Your task to perform on an android device: set an alarm Image 0: 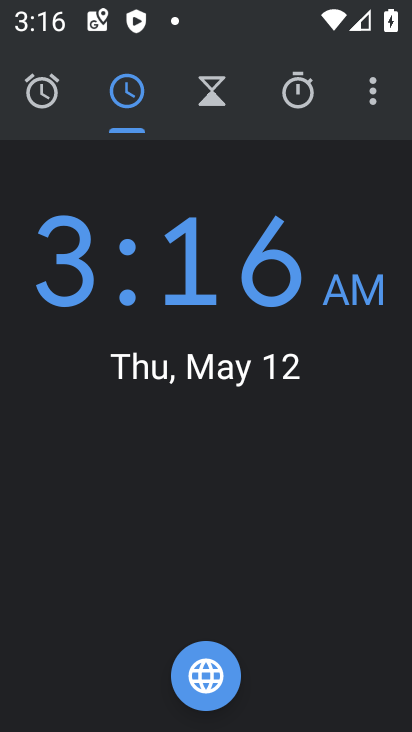
Step 0: click (44, 90)
Your task to perform on an android device: set an alarm Image 1: 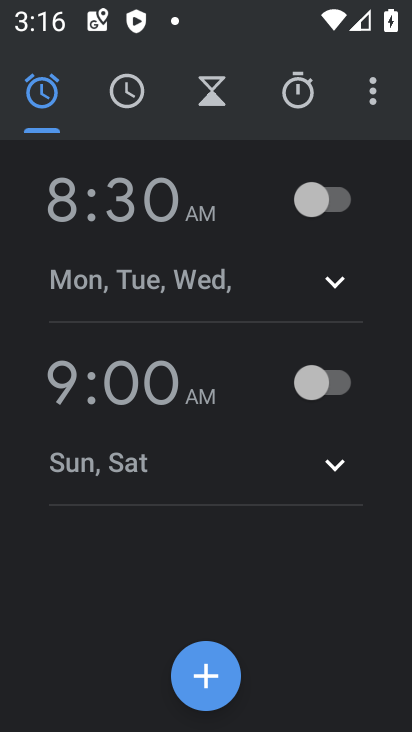
Step 1: click (205, 674)
Your task to perform on an android device: set an alarm Image 2: 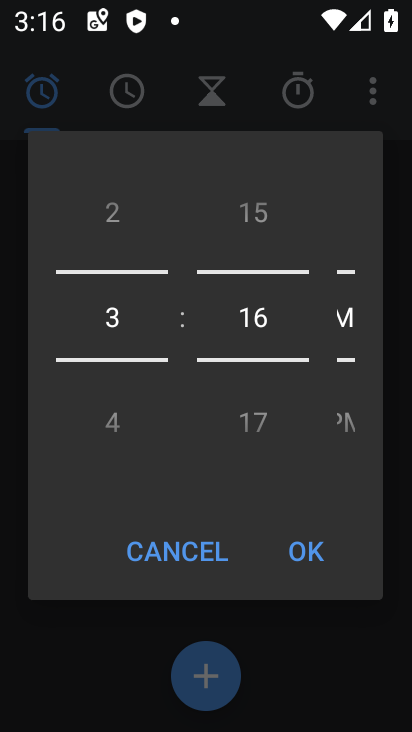
Step 2: drag from (120, 237) to (152, 434)
Your task to perform on an android device: set an alarm Image 3: 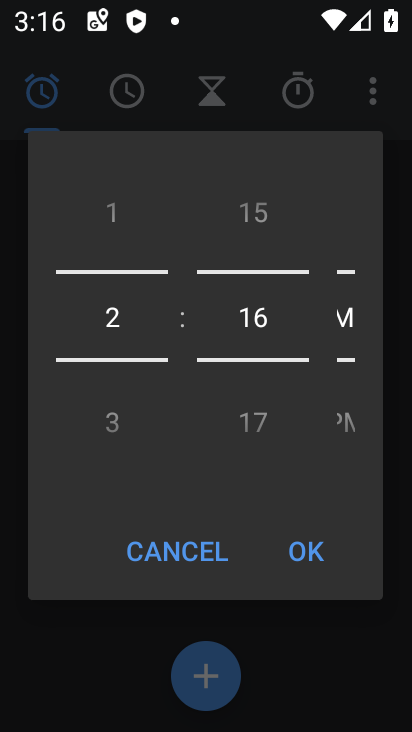
Step 3: drag from (253, 223) to (292, 456)
Your task to perform on an android device: set an alarm Image 4: 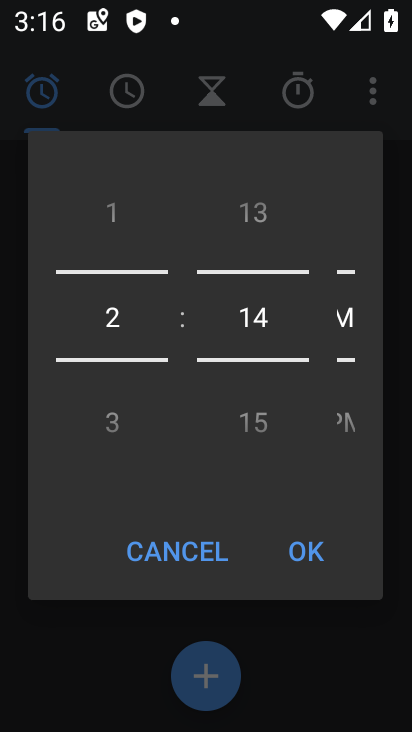
Step 4: drag from (348, 334) to (355, 215)
Your task to perform on an android device: set an alarm Image 5: 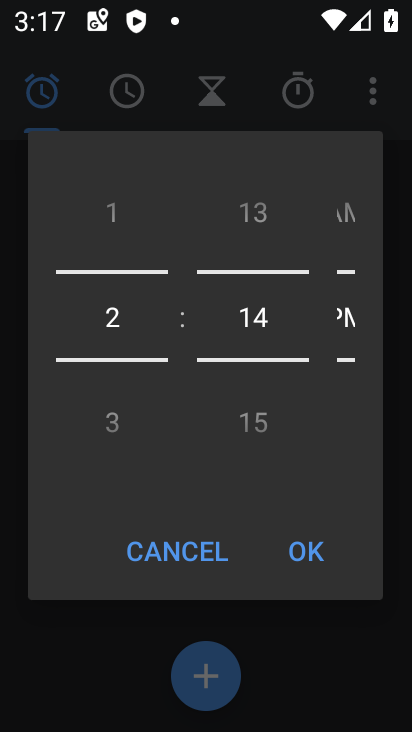
Step 5: click (312, 546)
Your task to perform on an android device: set an alarm Image 6: 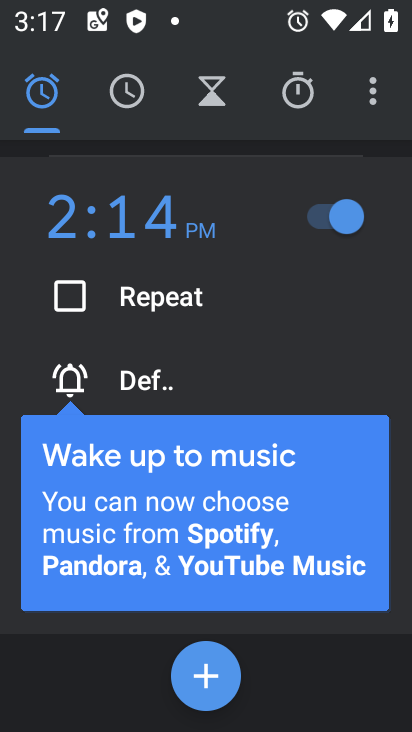
Step 6: click (325, 627)
Your task to perform on an android device: set an alarm Image 7: 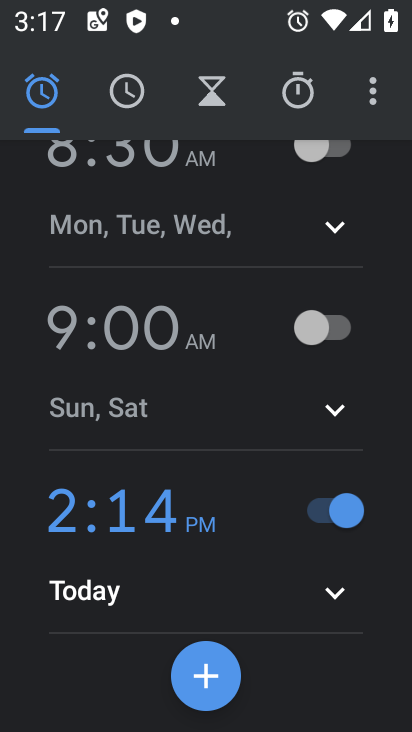
Step 7: task complete